Your task to perform on an android device: Open Reddit.com Image 0: 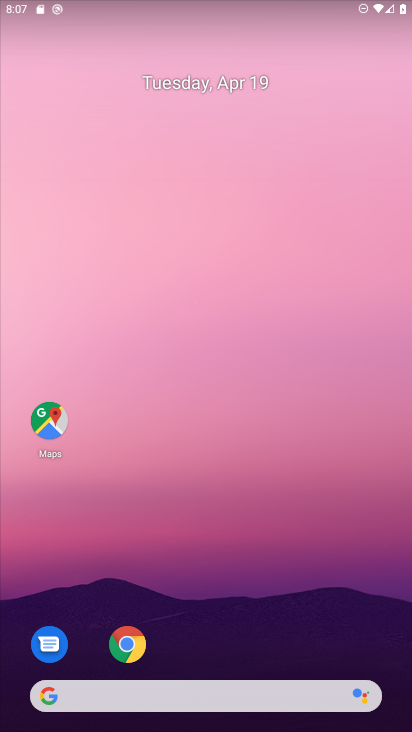
Step 0: click (127, 646)
Your task to perform on an android device: Open Reddit.com Image 1: 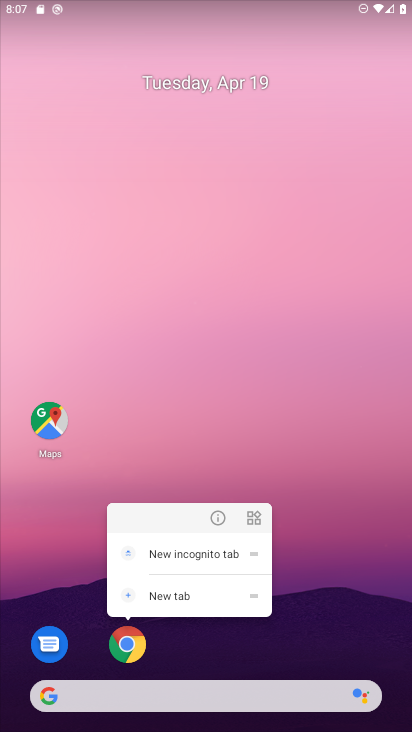
Step 1: click (165, 636)
Your task to perform on an android device: Open Reddit.com Image 2: 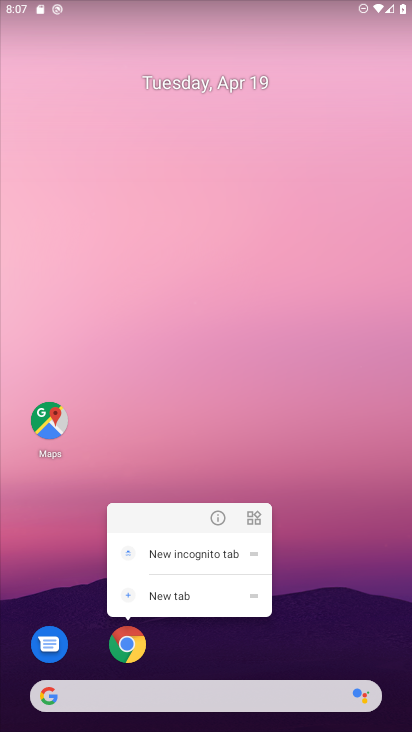
Step 2: drag from (200, 440) to (238, 109)
Your task to perform on an android device: Open Reddit.com Image 3: 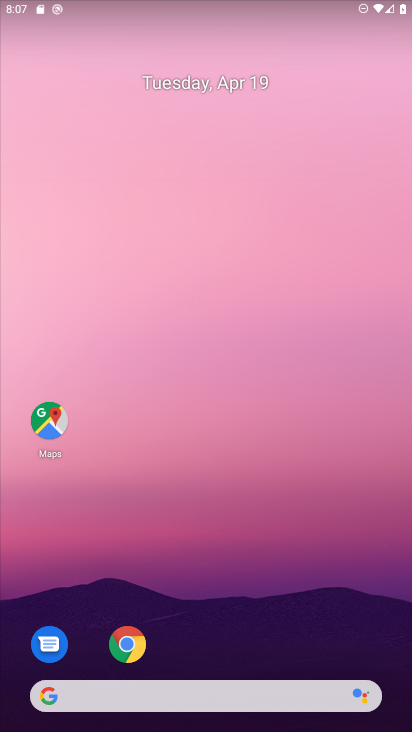
Step 3: drag from (189, 646) to (220, 175)
Your task to perform on an android device: Open Reddit.com Image 4: 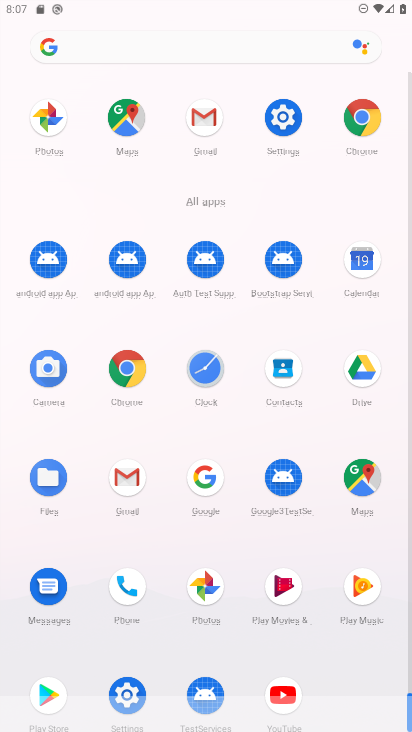
Step 4: click (364, 122)
Your task to perform on an android device: Open Reddit.com Image 5: 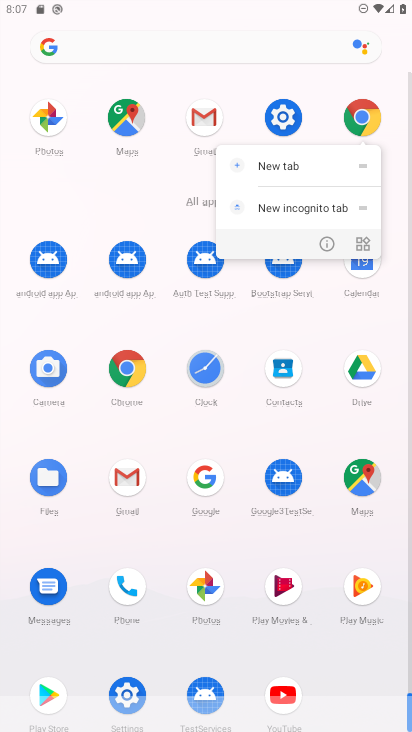
Step 5: click (327, 236)
Your task to perform on an android device: Open Reddit.com Image 6: 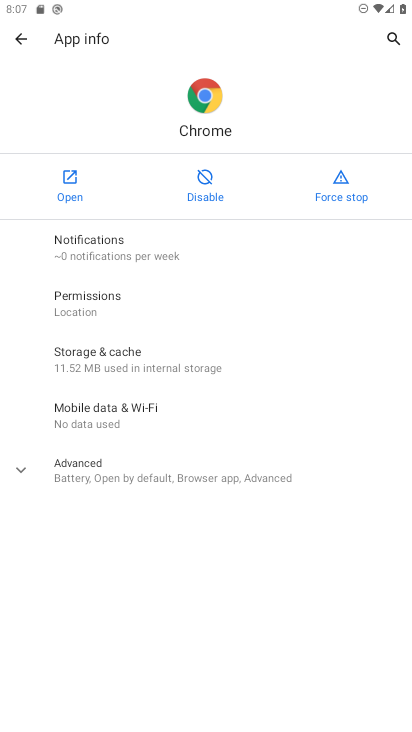
Step 6: click (62, 189)
Your task to perform on an android device: Open Reddit.com Image 7: 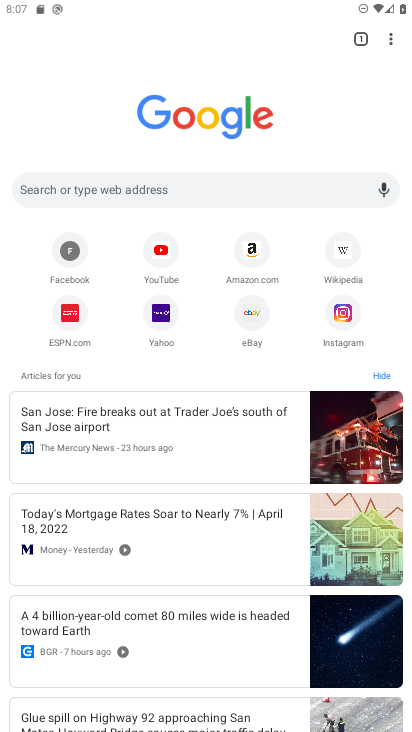
Step 7: click (62, 189)
Your task to perform on an android device: Open Reddit.com Image 8: 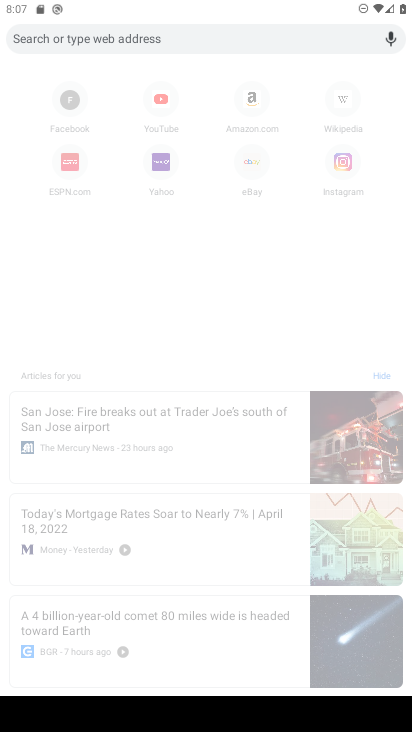
Step 8: type "Reddit.com"
Your task to perform on an android device: Open Reddit.com Image 9: 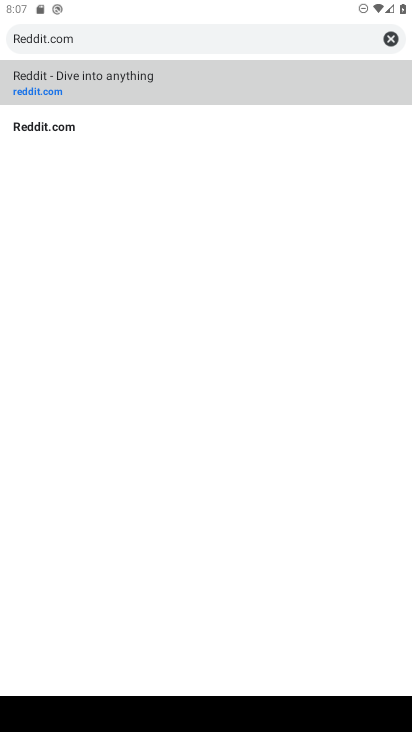
Step 9: click (58, 137)
Your task to perform on an android device: Open Reddit.com Image 10: 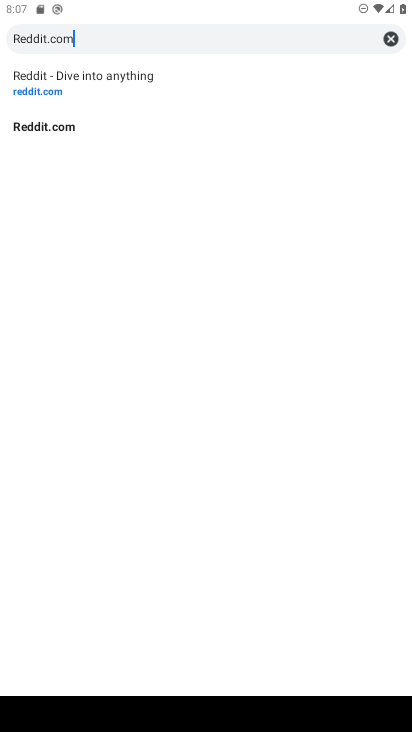
Step 10: click (53, 125)
Your task to perform on an android device: Open Reddit.com Image 11: 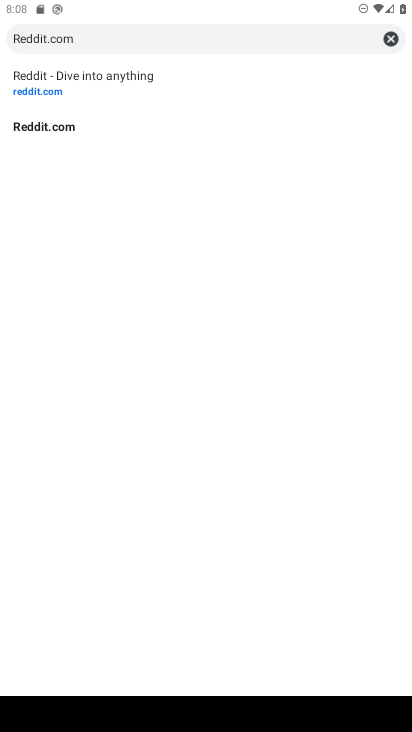
Step 11: click (53, 125)
Your task to perform on an android device: Open Reddit.com Image 12: 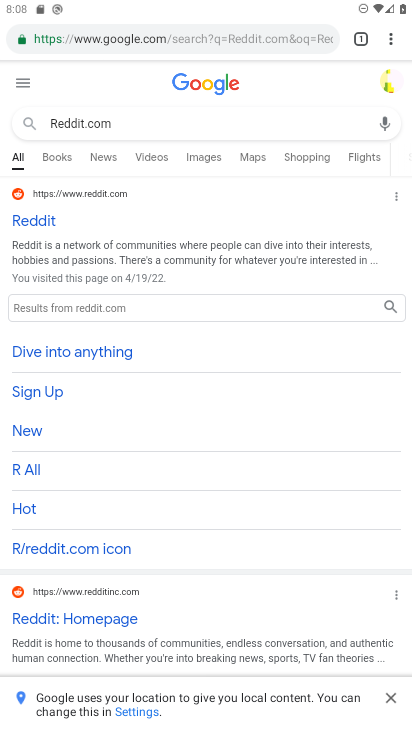
Step 12: task complete